Your task to perform on an android device: change notification settings in the gmail app Image 0: 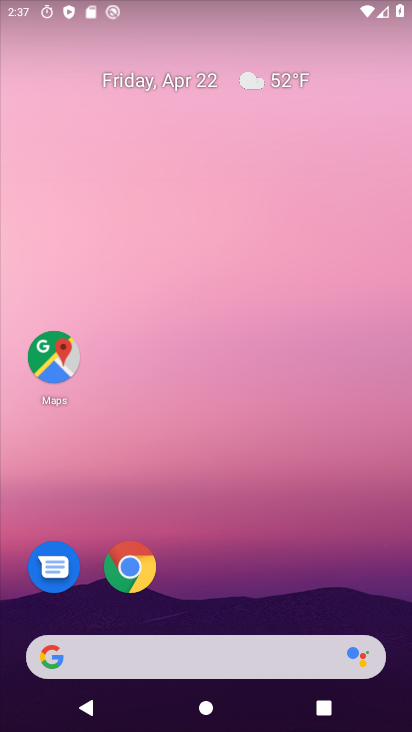
Step 0: drag from (256, 443) to (244, 127)
Your task to perform on an android device: change notification settings in the gmail app Image 1: 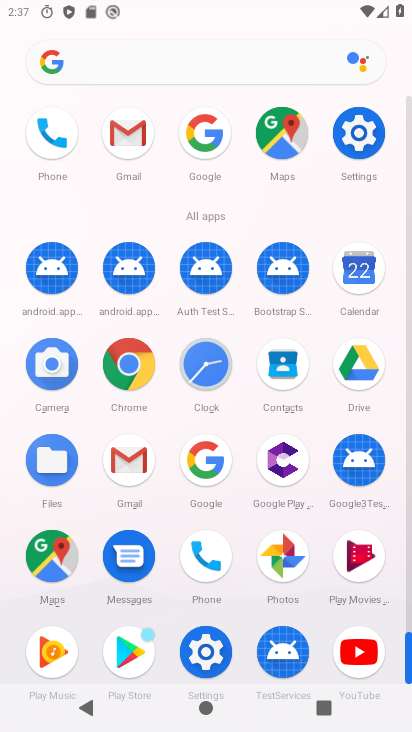
Step 1: click (123, 456)
Your task to perform on an android device: change notification settings in the gmail app Image 2: 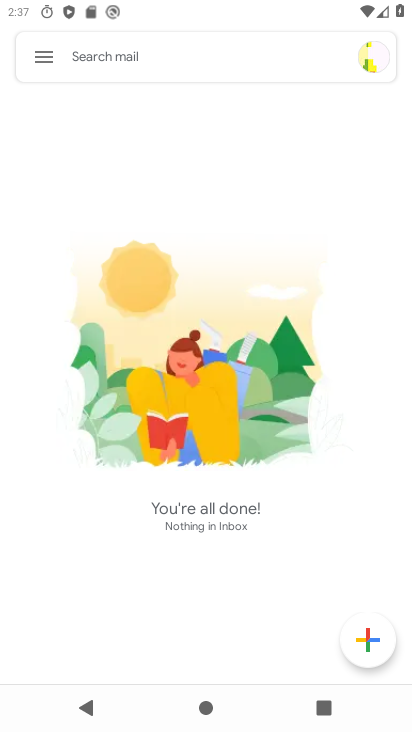
Step 2: click (45, 58)
Your task to perform on an android device: change notification settings in the gmail app Image 3: 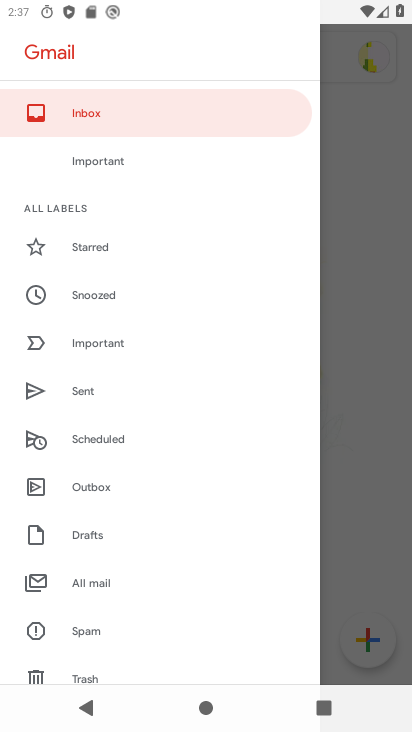
Step 3: drag from (153, 608) to (146, 170)
Your task to perform on an android device: change notification settings in the gmail app Image 4: 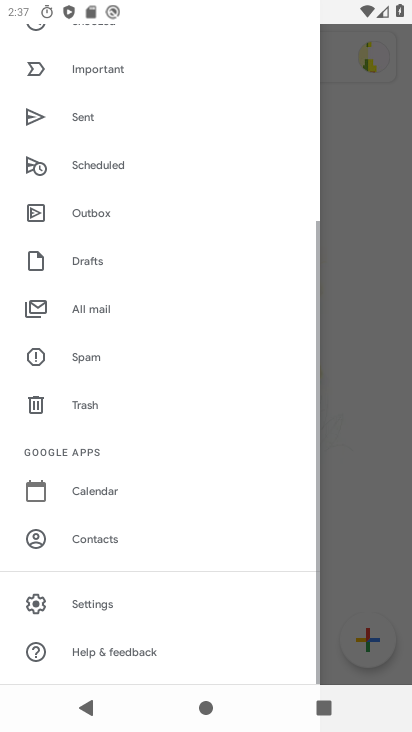
Step 4: click (117, 594)
Your task to perform on an android device: change notification settings in the gmail app Image 5: 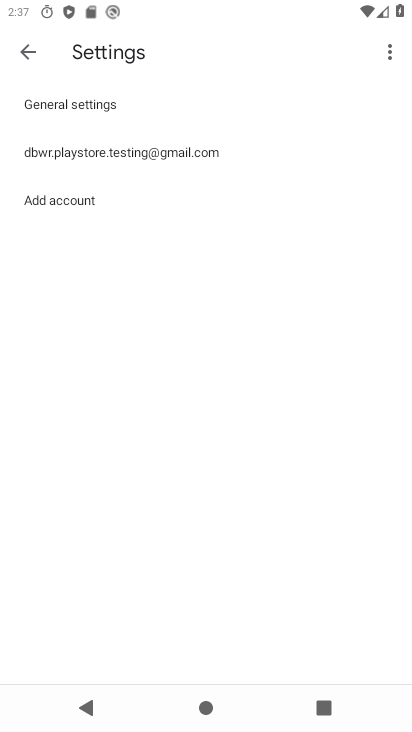
Step 5: click (136, 154)
Your task to perform on an android device: change notification settings in the gmail app Image 6: 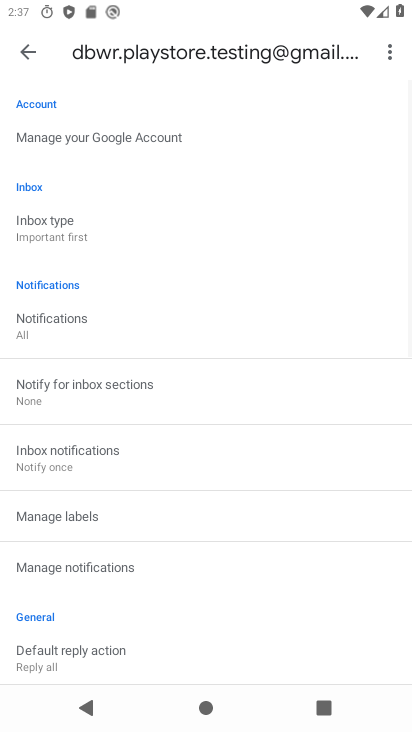
Step 6: drag from (75, 547) to (71, 244)
Your task to perform on an android device: change notification settings in the gmail app Image 7: 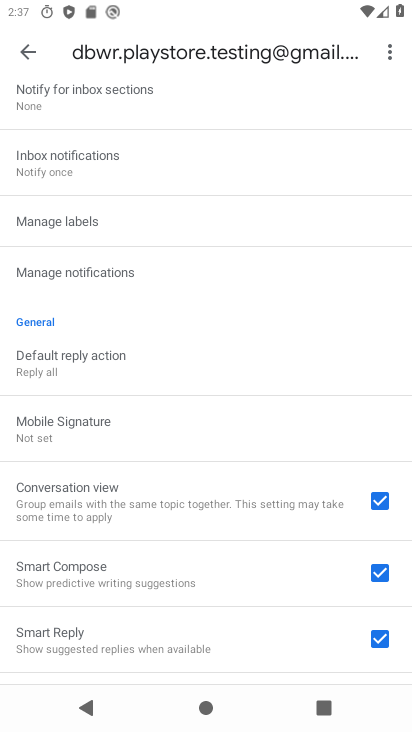
Step 7: click (74, 278)
Your task to perform on an android device: change notification settings in the gmail app Image 8: 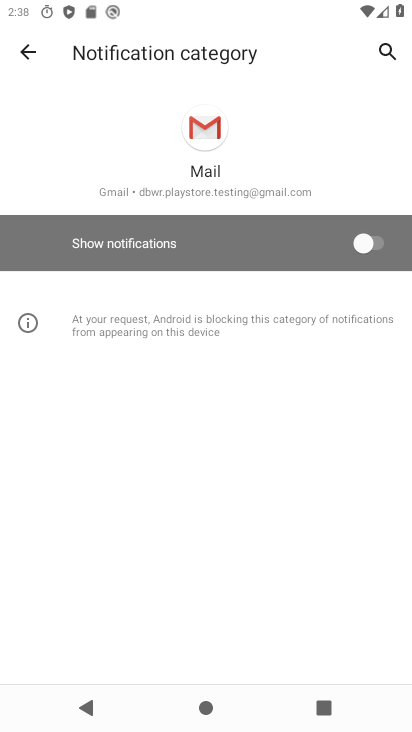
Step 8: click (357, 238)
Your task to perform on an android device: change notification settings in the gmail app Image 9: 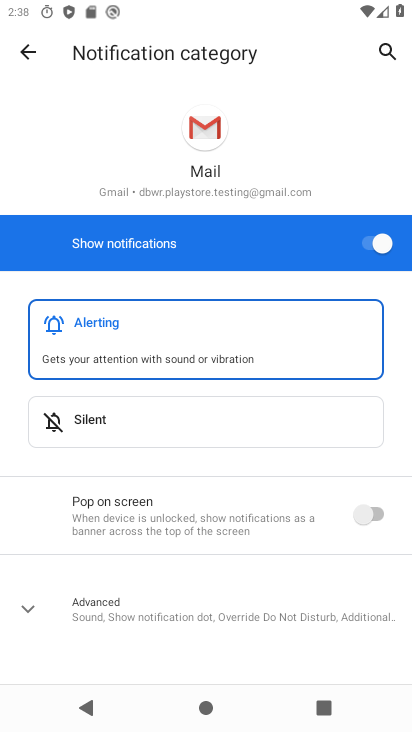
Step 9: task complete